Your task to perform on an android device: Search for vegetarian restaurants on Maps Image 0: 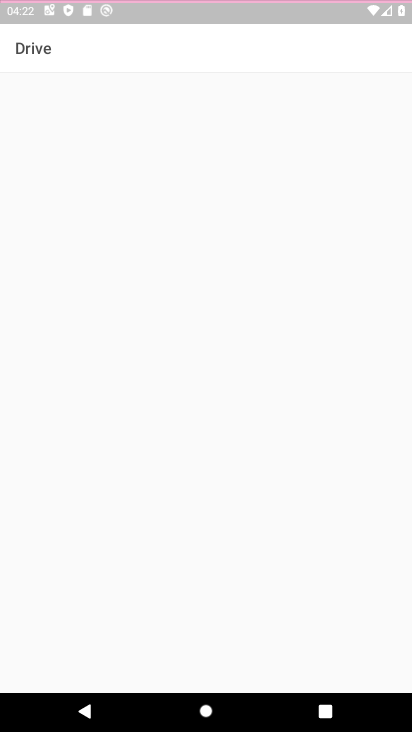
Step 0: click (198, 249)
Your task to perform on an android device: Search for vegetarian restaurants on Maps Image 1: 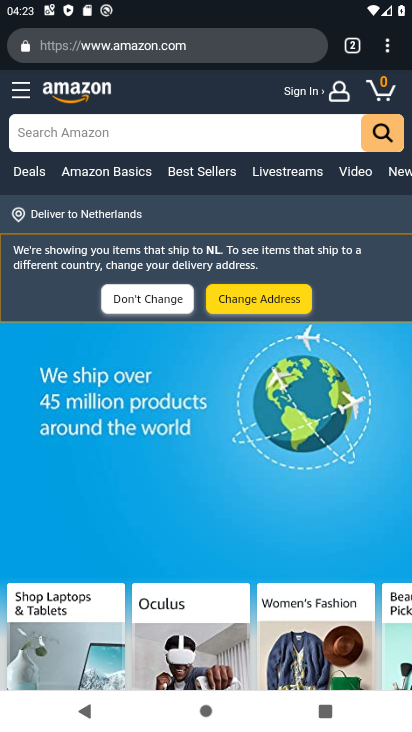
Step 1: press home button
Your task to perform on an android device: Search for vegetarian restaurants on Maps Image 2: 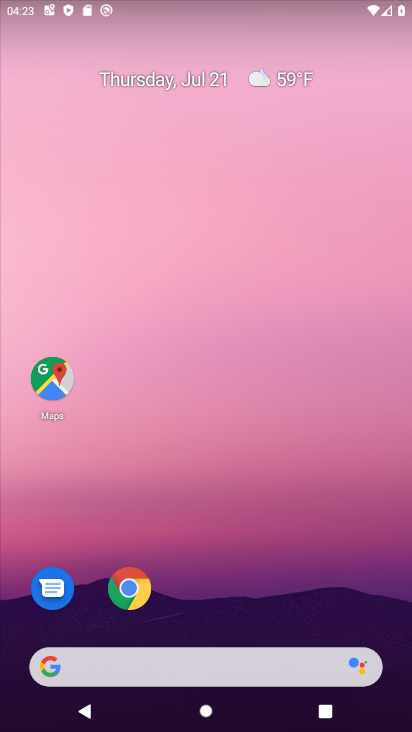
Step 2: click (68, 383)
Your task to perform on an android device: Search for vegetarian restaurants on Maps Image 3: 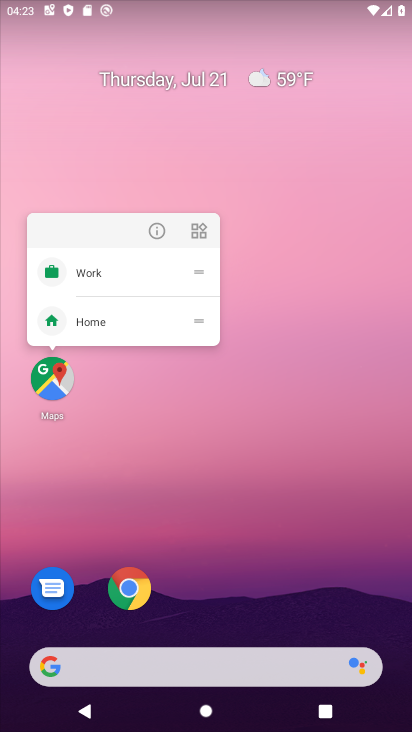
Step 3: click (60, 387)
Your task to perform on an android device: Search for vegetarian restaurants on Maps Image 4: 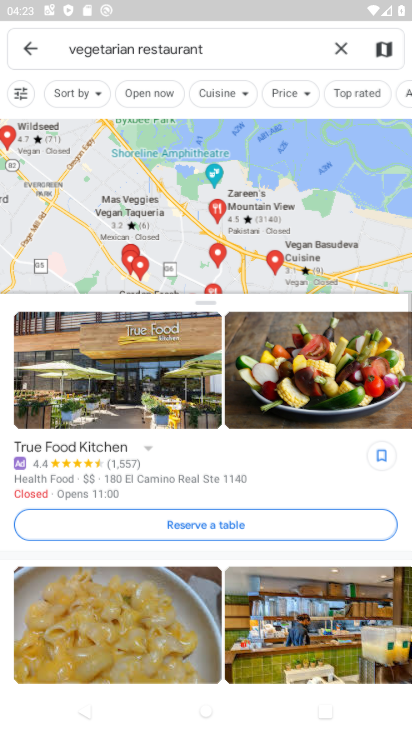
Step 4: click (186, 427)
Your task to perform on an android device: Search for vegetarian restaurants on Maps Image 5: 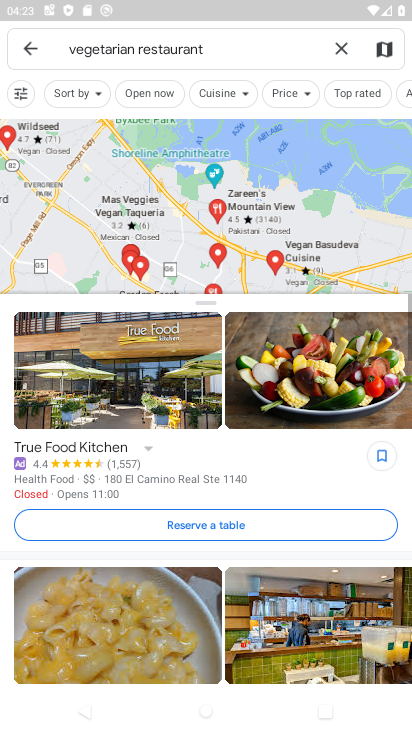
Step 5: task complete